Your task to perform on an android device: Add "razer huntsman" to the cart on bestbuy Image 0: 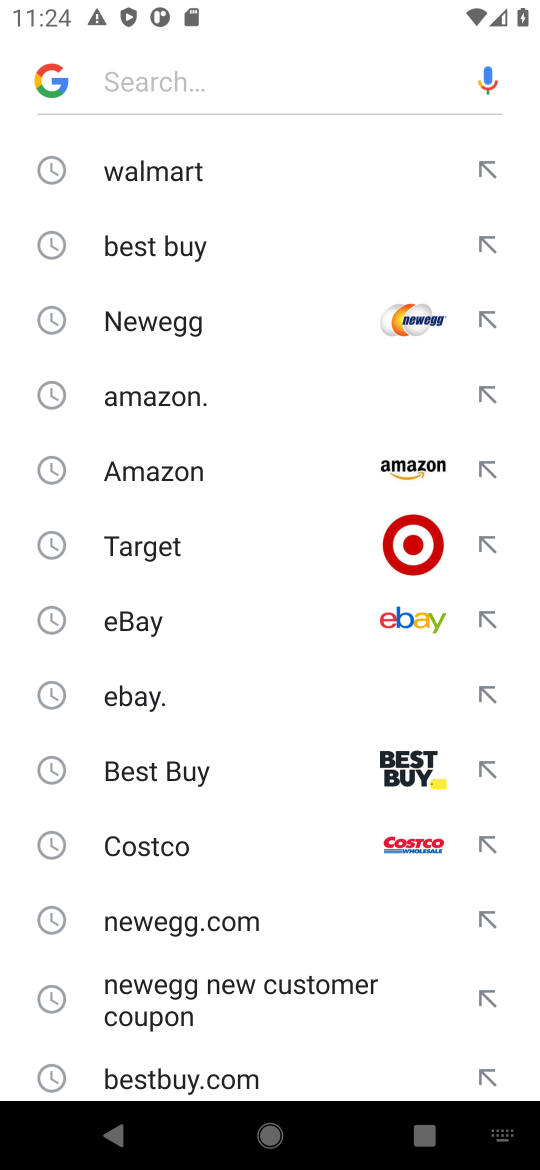
Step 0: click (152, 251)
Your task to perform on an android device: Add "razer huntsman" to the cart on bestbuy Image 1: 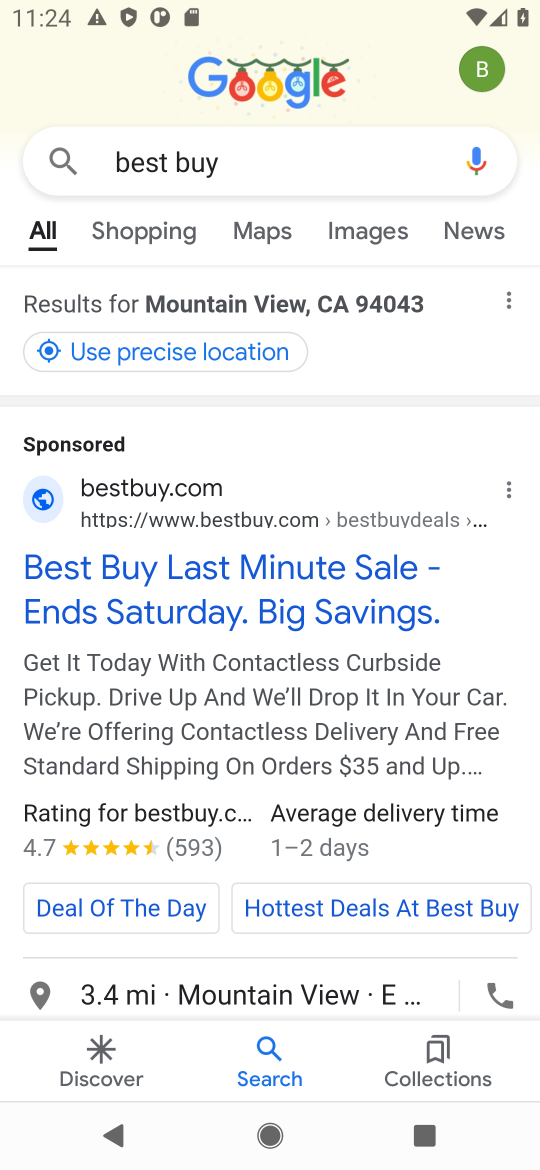
Step 1: click (288, 586)
Your task to perform on an android device: Add "razer huntsman" to the cart on bestbuy Image 2: 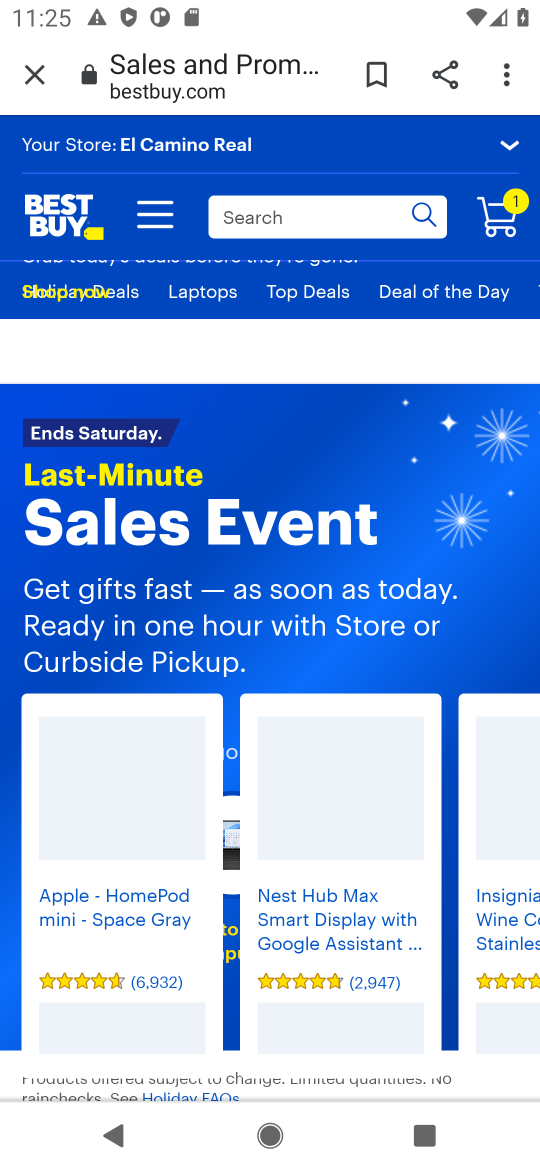
Step 2: click (243, 231)
Your task to perform on an android device: Add "razer huntsman" to the cart on bestbuy Image 3: 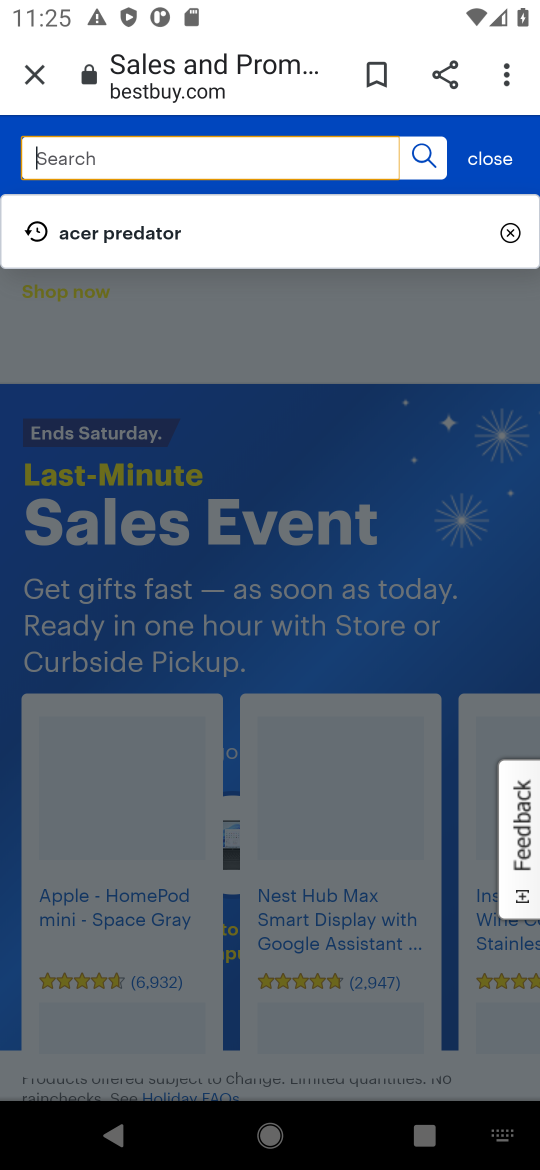
Step 3: type "razer"
Your task to perform on an android device: Add "razer huntsman" to the cart on bestbuy Image 4: 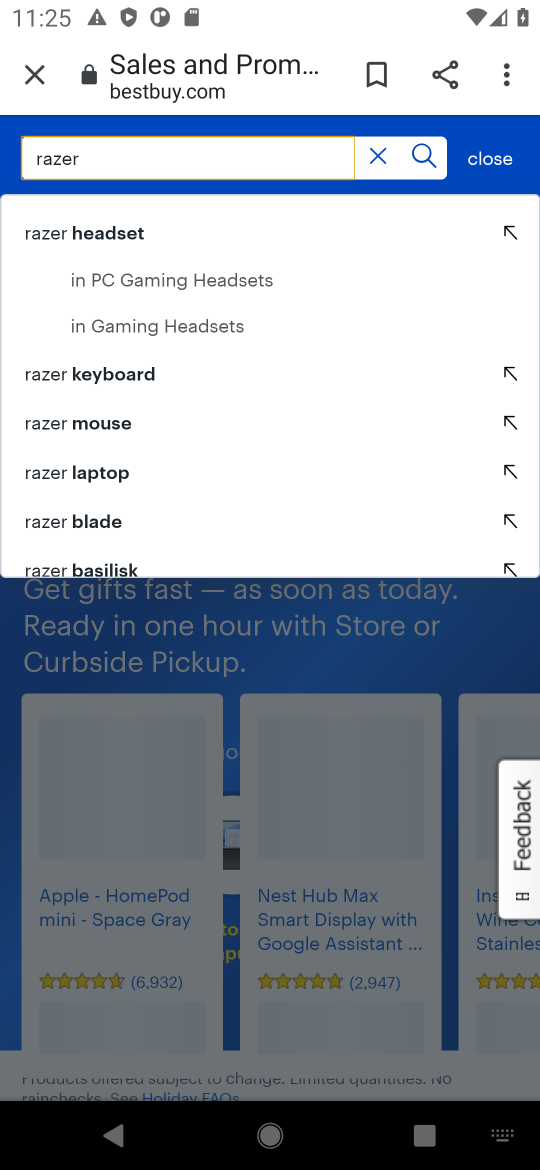
Step 4: type " huntsman"
Your task to perform on an android device: Add "razer huntsman" to the cart on bestbuy Image 5: 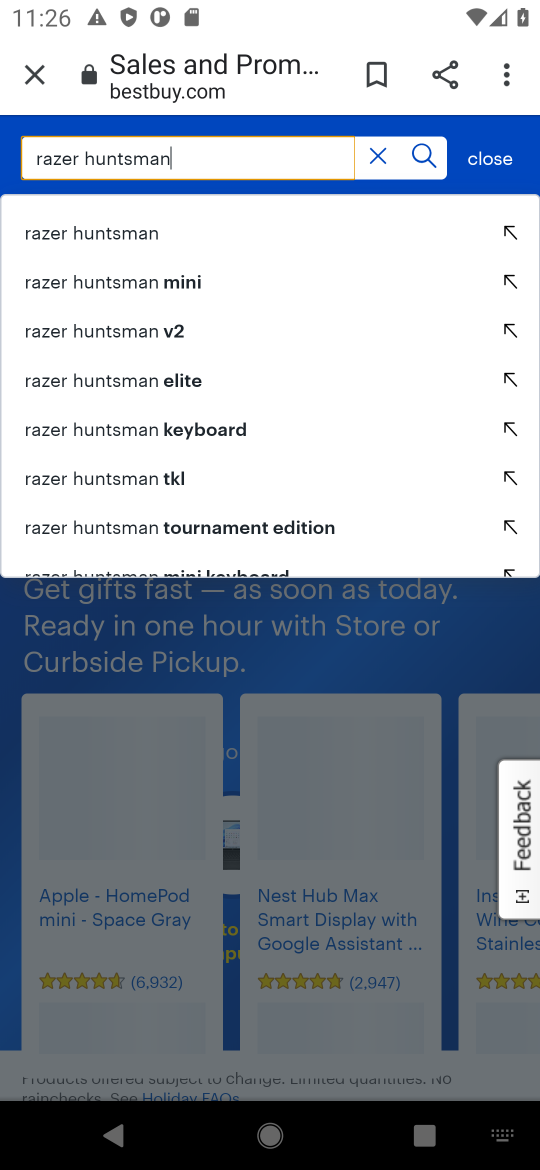
Step 5: click (73, 221)
Your task to perform on an android device: Add "razer huntsman" to the cart on bestbuy Image 6: 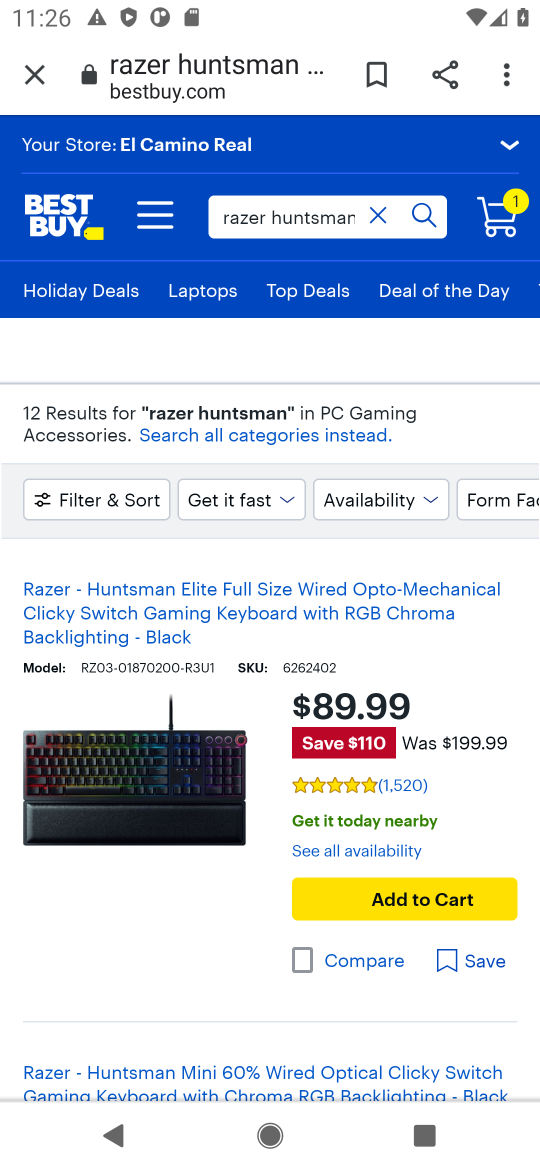
Step 6: click (100, 623)
Your task to perform on an android device: Add "razer huntsman" to the cart on bestbuy Image 7: 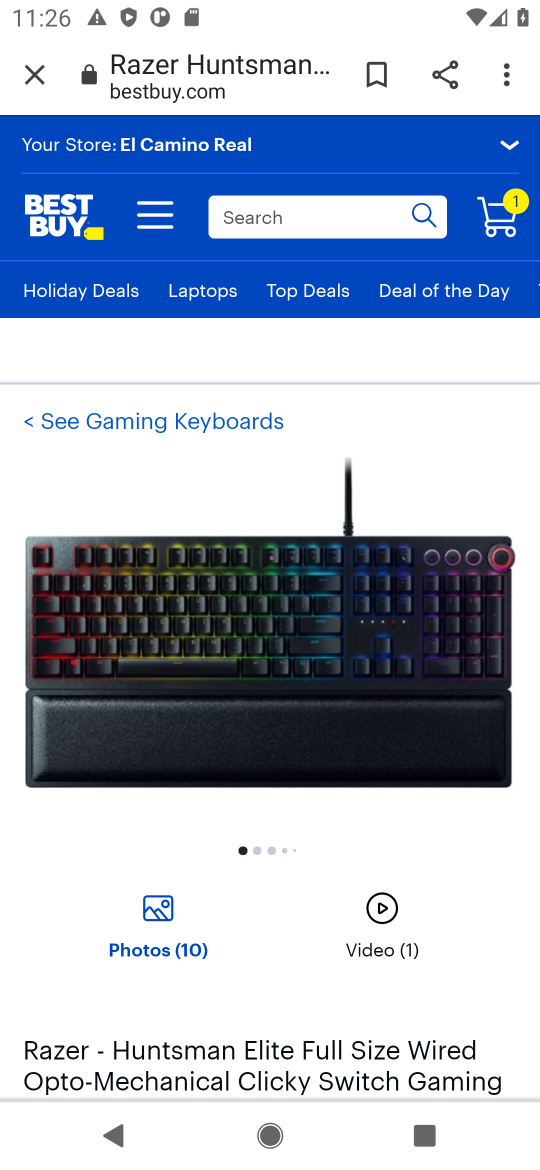
Step 7: drag from (284, 982) to (181, 328)
Your task to perform on an android device: Add "razer huntsman" to the cart on bestbuy Image 8: 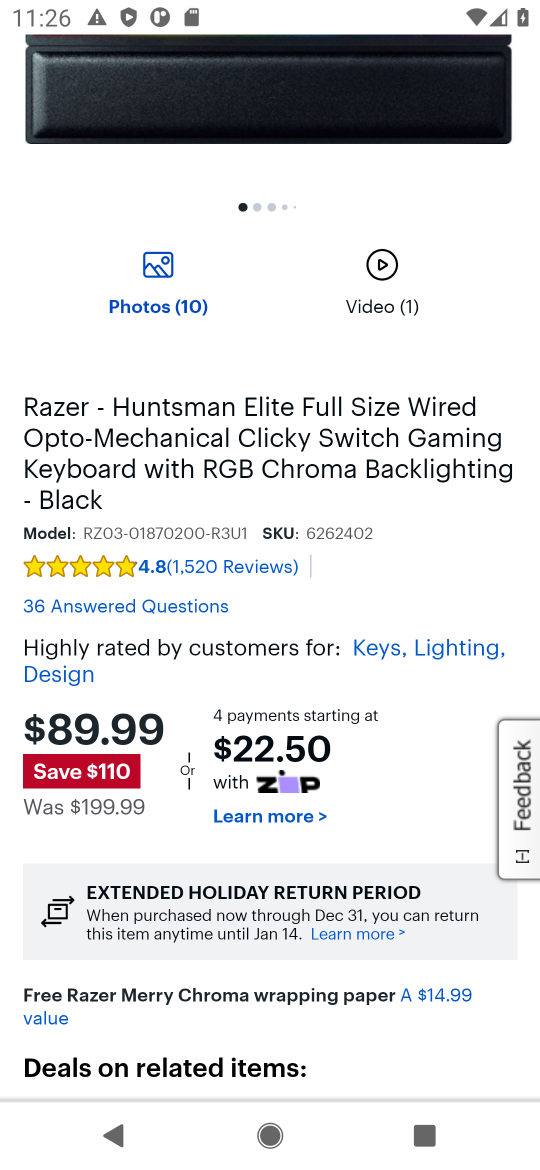
Step 8: drag from (344, 1017) to (358, 318)
Your task to perform on an android device: Add "razer huntsman" to the cart on bestbuy Image 9: 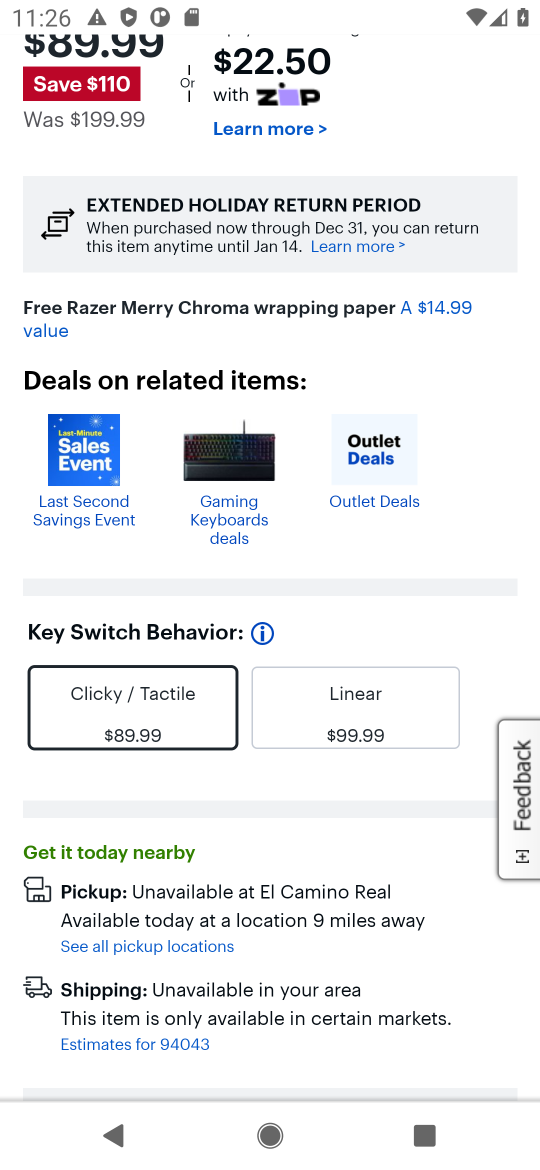
Step 9: drag from (282, 796) to (247, 276)
Your task to perform on an android device: Add "razer huntsman" to the cart on bestbuy Image 10: 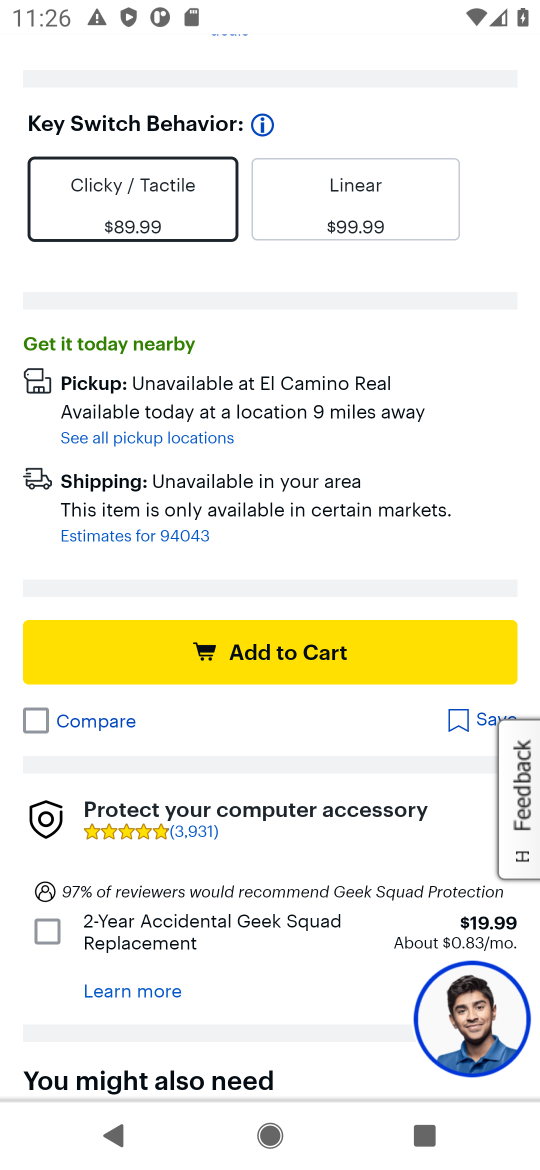
Step 10: click (183, 669)
Your task to perform on an android device: Add "razer huntsman" to the cart on bestbuy Image 11: 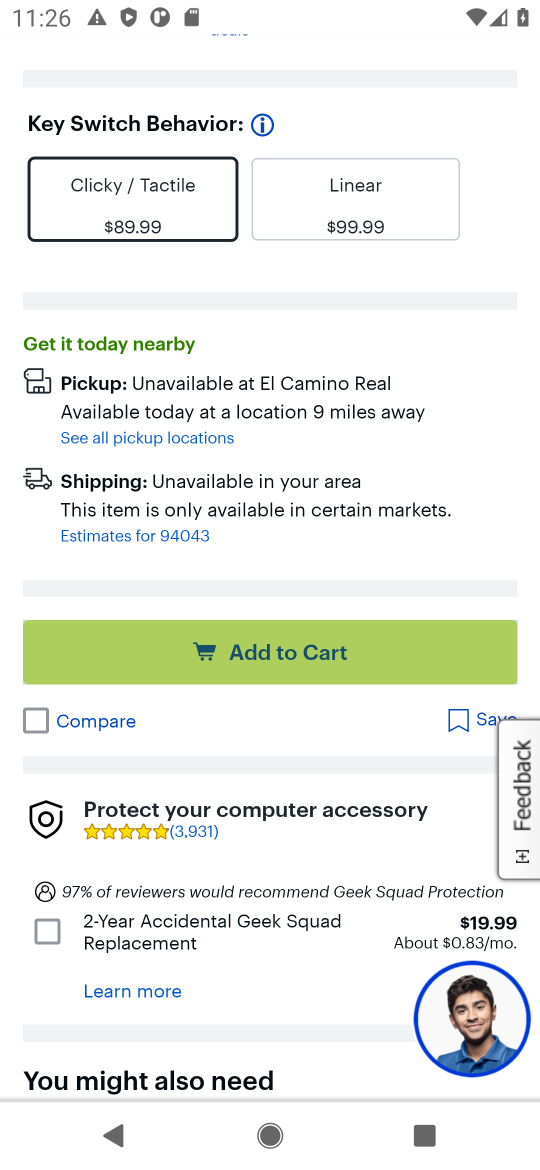
Step 11: task complete